Your task to perform on an android device: turn pop-ups on in chrome Image 0: 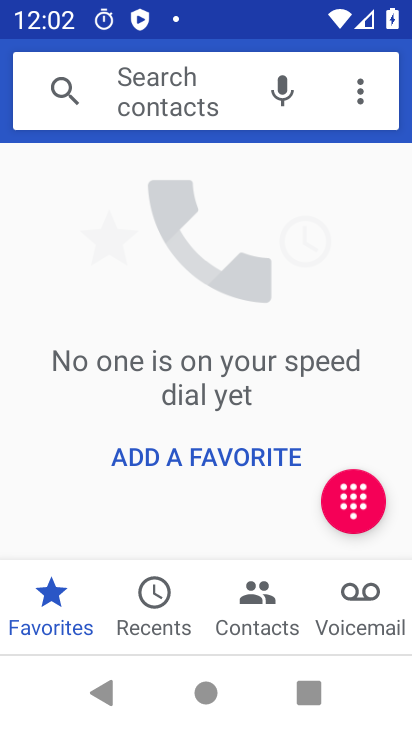
Step 0: press home button
Your task to perform on an android device: turn pop-ups on in chrome Image 1: 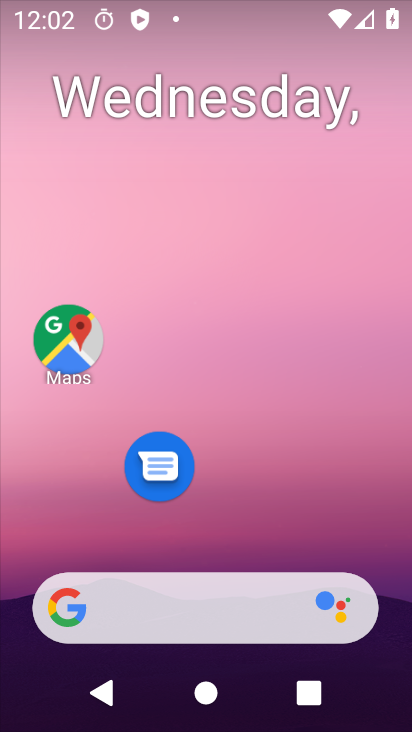
Step 1: drag from (288, 548) to (245, 63)
Your task to perform on an android device: turn pop-ups on in chrome Image 2: 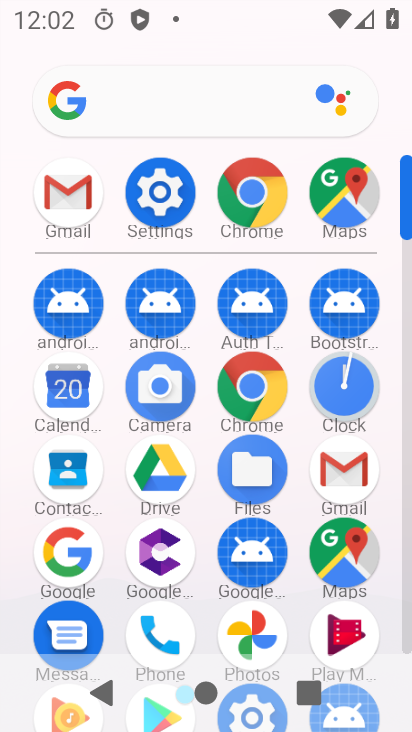
Step 2: click (250, 217)
Your task to perform on an android device: turn pop-ups on in chrome Image 3: 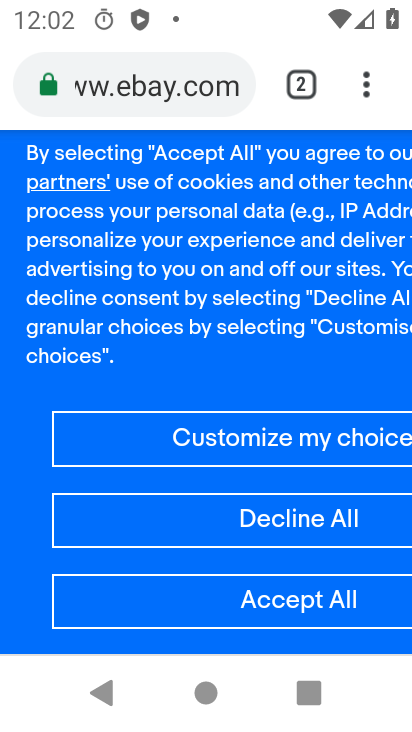
Step 3: click (368, 74)
Your task to perform on an android device: turn pop-ups on in chrome Image 4: 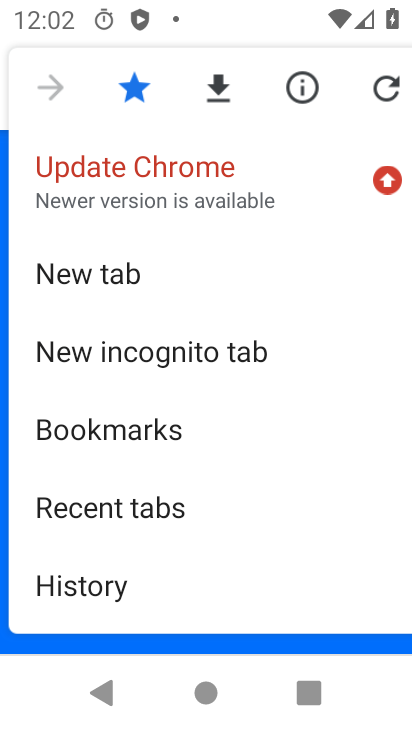
Step 4: drag from (254, 406) to (293, 182)
Your task to perform on an android device: turn pop-ups on in chrome Image 5: 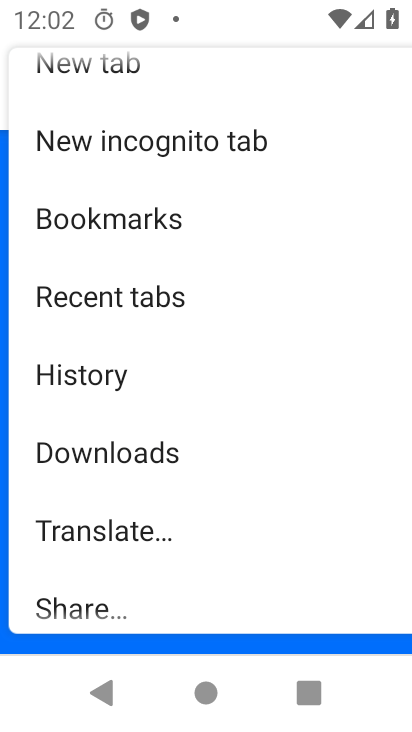
Step 5: drag from (183, 547) to (234, 287)
Your task to perform on an android device: turn pop-ups on in chrome Image 6: 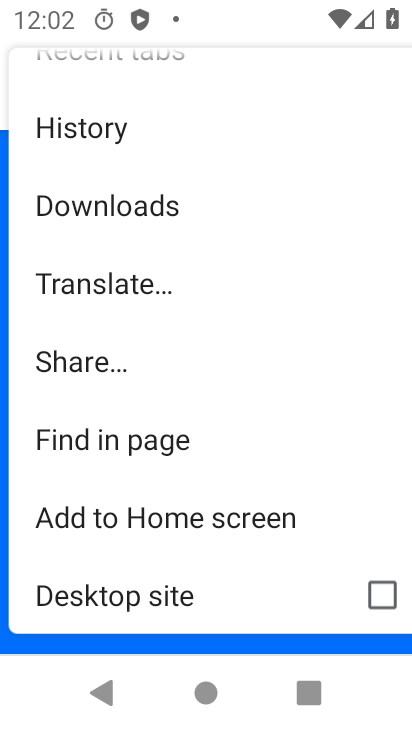
Step 6: drag from (211, 535) to (241, 278)
Your task to perform on an android device: turn pop-ups on in chrome Image 7: 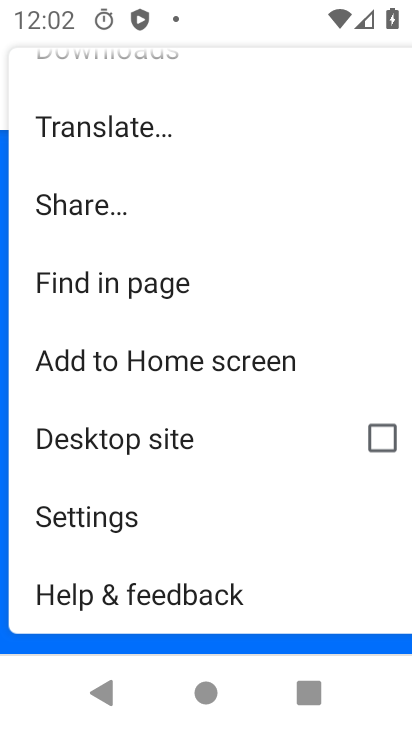
Step 7: click (154, 492)
Your task to perform on an android device: turn pop-ups on in chrome Image 8: 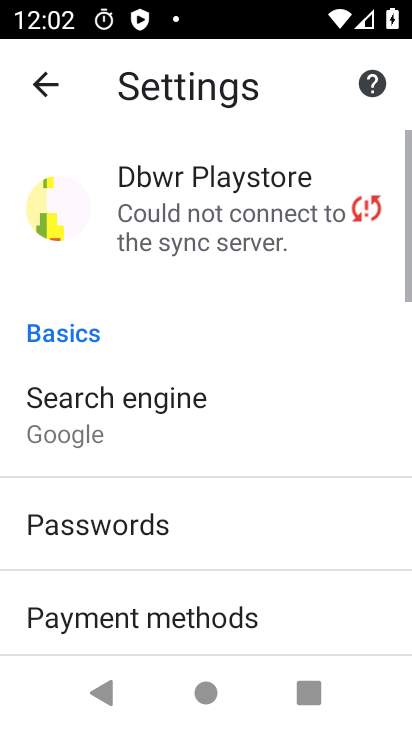
Step 8: drag from (161, 580) to (300, 23)
Your task to perform on an android device: turn pop-ups on in chrome Image 9: 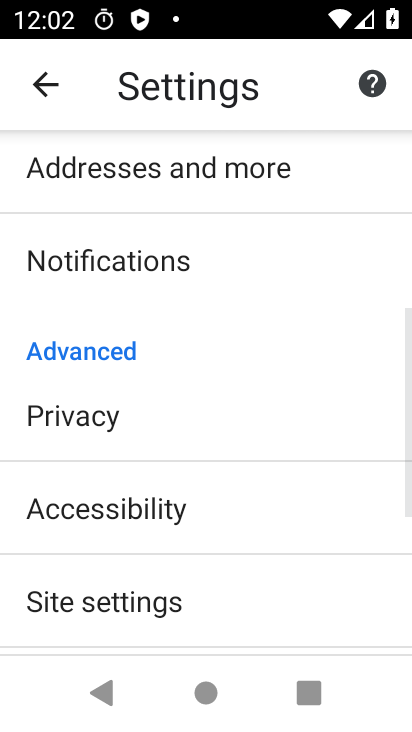
Step 9: drag from (204, 532) to (308, 223)
Your task to perform on an android device: turn pop-ups on in chrome Image 10: 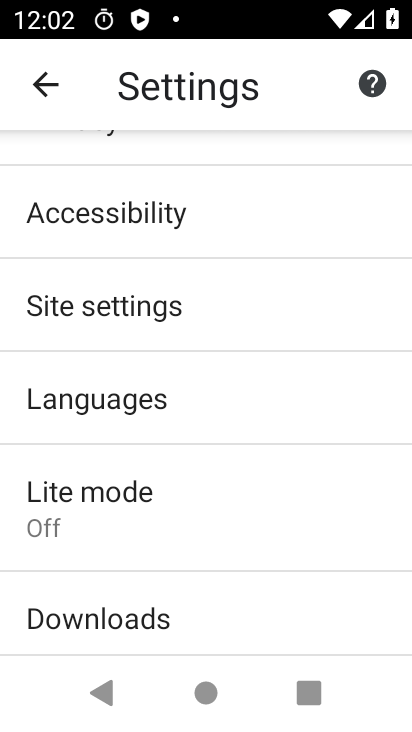
Step 10: click (309, 306)
Your task to perform on an android device: turn pop-ups on in chrome Image 11: 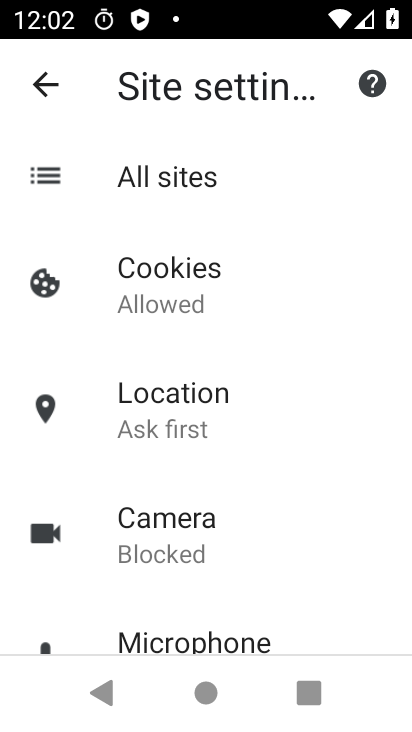
Step 11: drag from (240, 554) to (384, 37)
Your task to perform on an android device: turn pop-ups on in chrome Image 12: 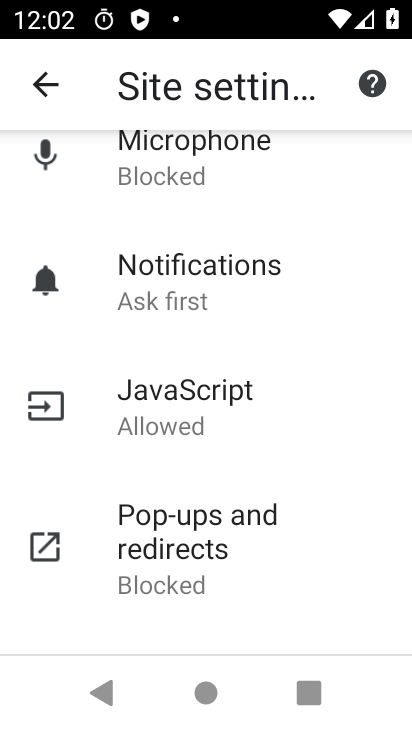
Step 12: click (251, 532)
Your task to perform on an android device: turn pop-ups on in chrome Image 13: 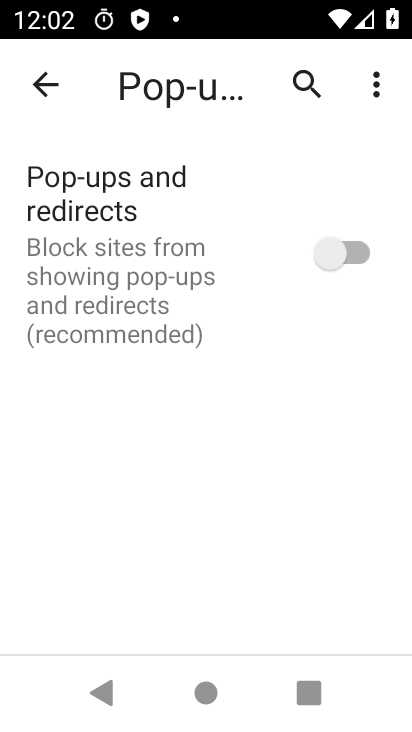
Step 13: click (341, 257)
Your task to perform on an android device: turn pop-ups on in chrome Image 14: 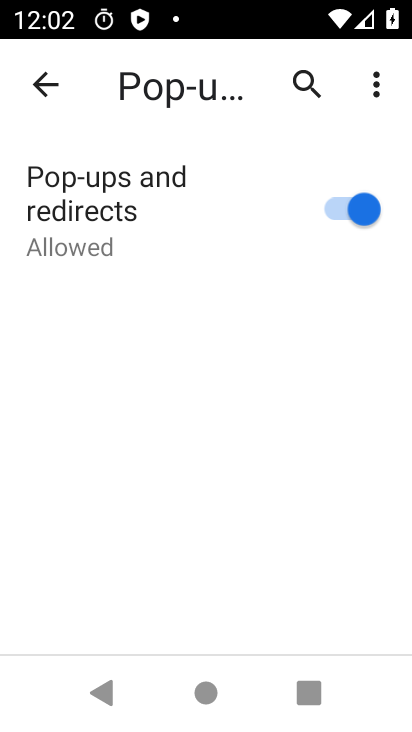
Step 14: task complete